Your task to perform on an android device: create a new album in the google photos Image 0: 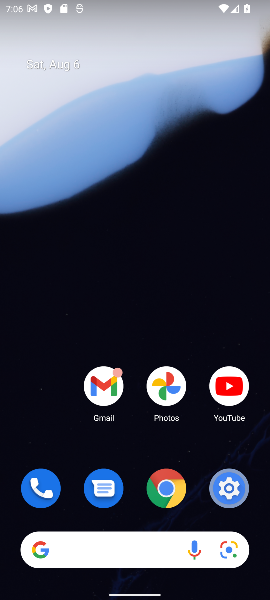
Step 0: click (155, 391)
Your task to perform on an android device: create a new album in the google photos Image 1: 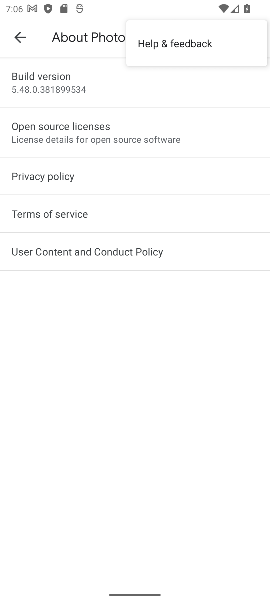
Step 1: click (14, 31)
Your task to perform on an android device: create a new album in the google photos Image 2: 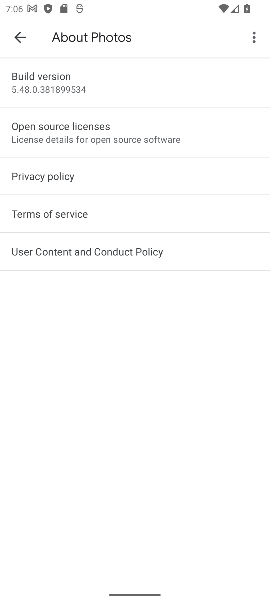
Step 2: click (20, 46)
Your task to perform on an android device: create a new album in the google photos Image 3: 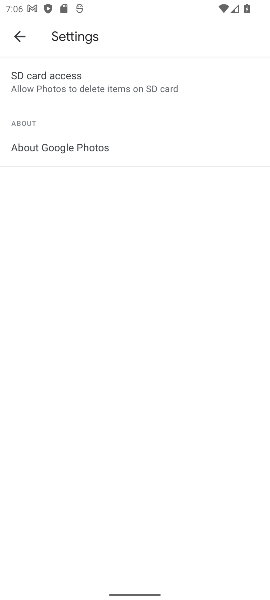
Step 3: click (19, 37)
Your task to perform on an android device: create a new album in the google photos Image 4: 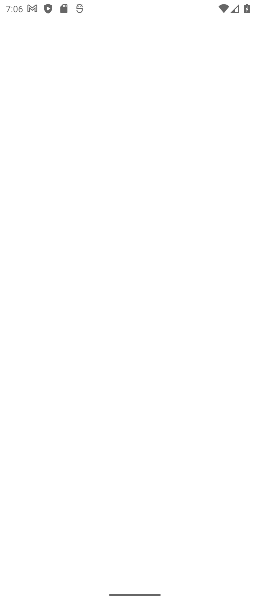
Step 4: click (19, 37)
Your task to perform on an android device: create a new album in the google photos Image 5: 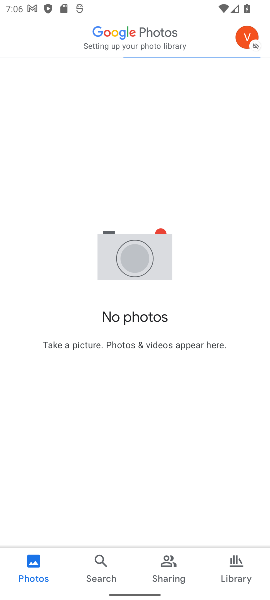
Step 5: drag from (17, 481) to (86, 599)
Your task to perform on an android device: create a new album in the google photos Image 6: 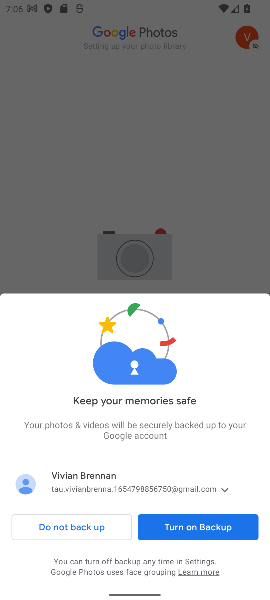
Step 6: click (125, 197)
Your task to perform on an android device: create a new album in the google photos Image 7: 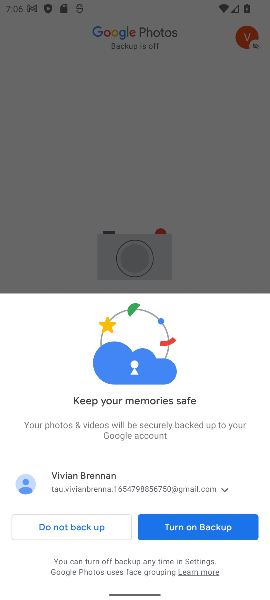
Step 7: click (66, 526)
Your task to perform on an android device: create a new album in the google photos Image 8: 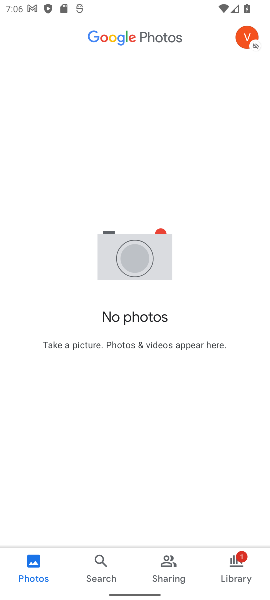
Step 8: click (228, 569)
Your task to perform on an android device: create a new album in the google photos Image 9: 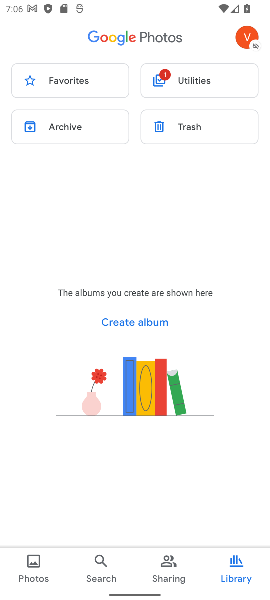
Step 9: click (31, 560)
Your task to perform on an android device: create a new album in the google photos Image 10: 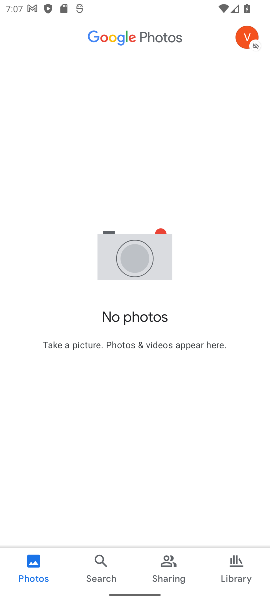
Step 10: click (138, 253)
Your task to perform on an android device: create a new album in the google photos Image 11: 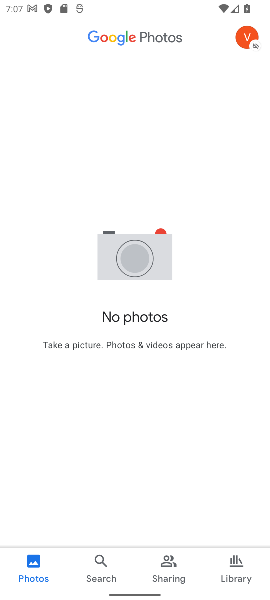
Step 11: task complete